Your task to perform on an android device: clear all cookies in the chrome app Image 0: 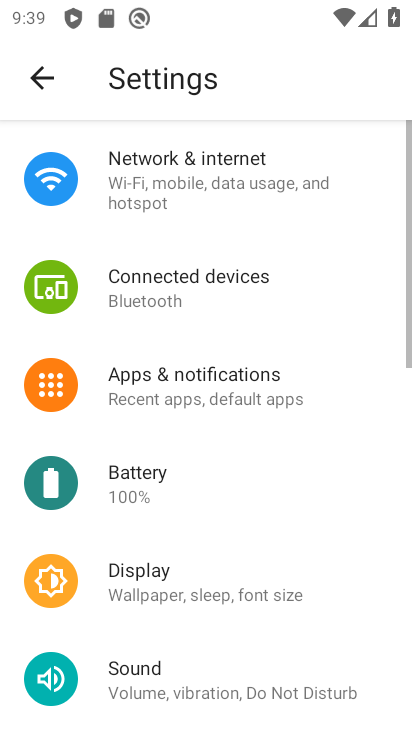
Step 0: drag from (192, 13) to (209, 517)
Your task to perform on an android device: clear all cookies in the chrome app Image 1: 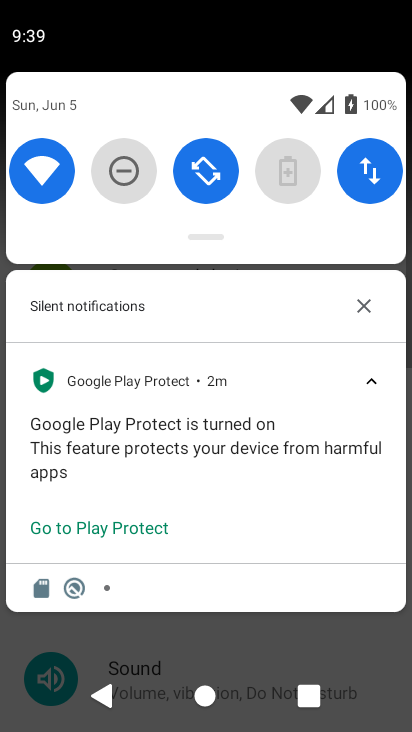
Step 1: press home button
Your task to perform on an android device: clear all cookies in the chrome app Image 2: 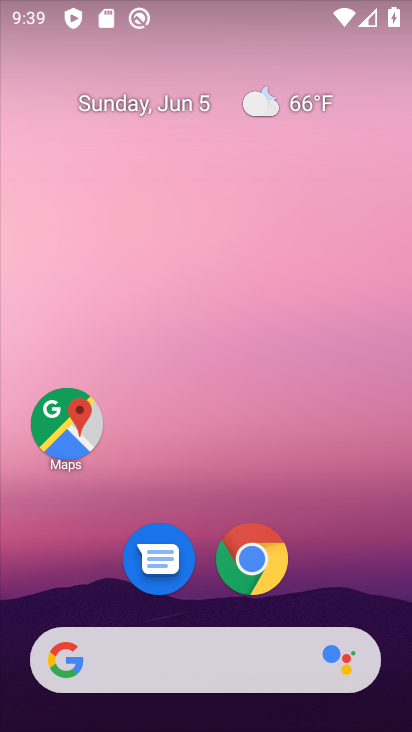
Step 2: click (250, 554)
Your task to perform on an android device: clear all cookies in the chrome app Image 3: 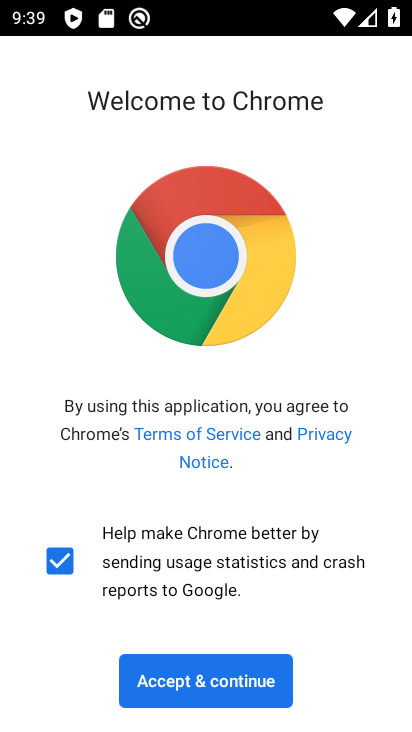
Step 3: click (201, 676)
Your task to perform on an android device: clear all cookies in the chrome app Image 4: 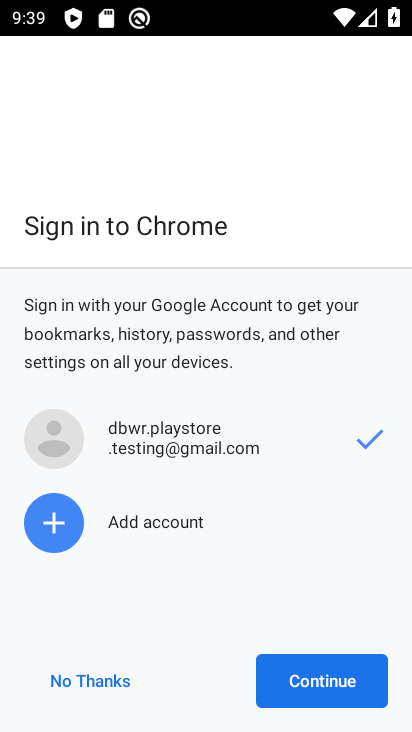
Step 4: click (326, 675)
Your task to perform on an android device: clear all cookies in the chrome app Image 5: 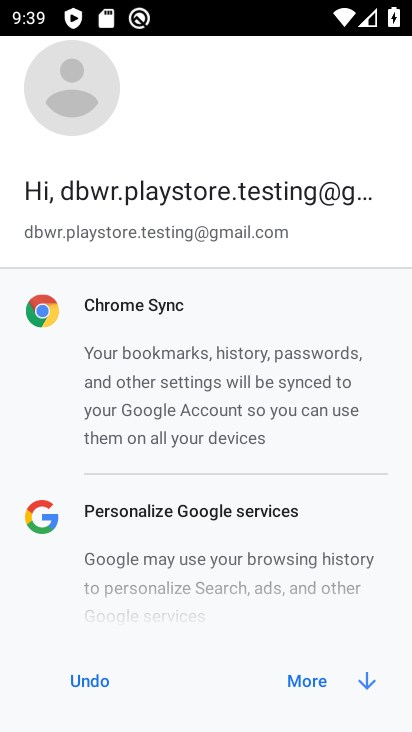
Step 5: click (304, 682)
Your task to perform on an android device: clear all cookies in the chrome app Image 6: 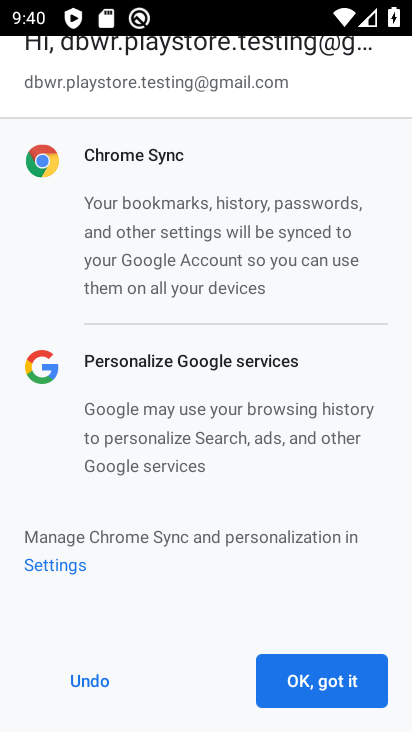
Step 6: click (324, 678)
Your task to perform on an android device: clear all cookies in the chrome app Image 7: 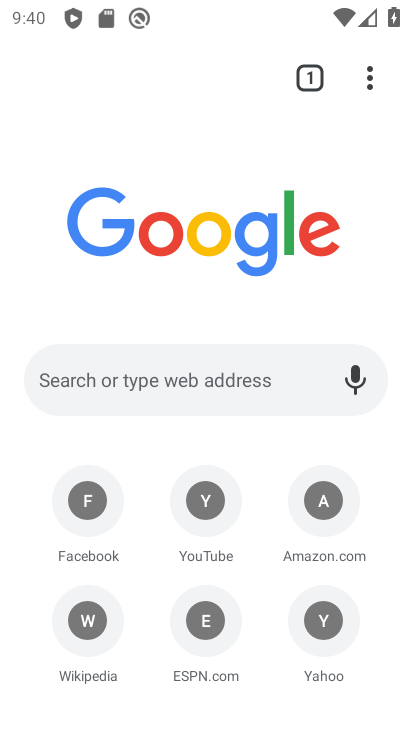
Step 7: click (372, 75)
Your task to perform on an android device: clear all cookies in the chrome app Image 8: 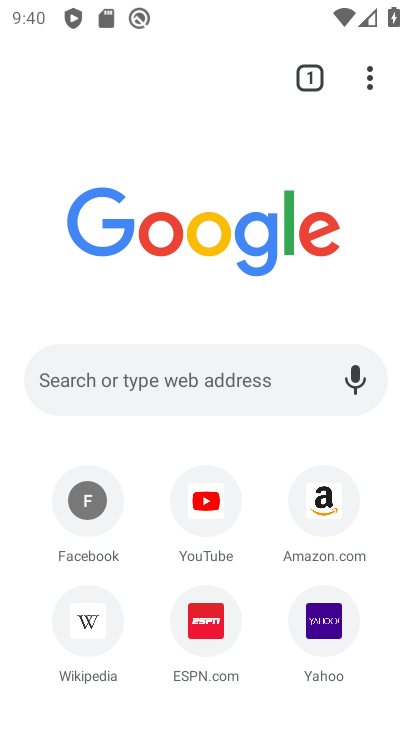
Step 8: click (365, 74)
Your task to perform on an android device: clear all cookies in the chrome app Image 9: 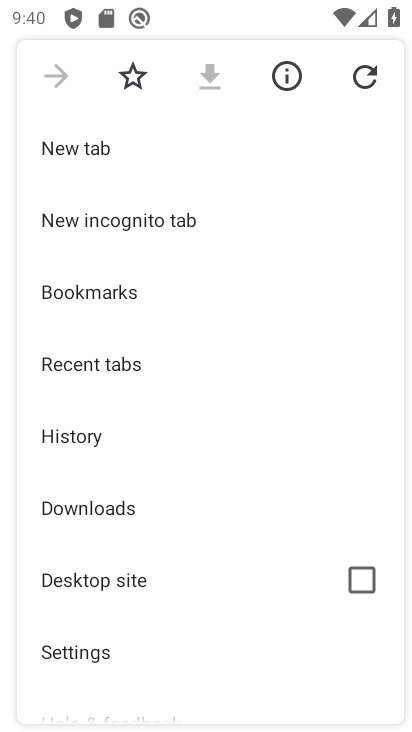
Step 9: click (105, 428)
Your task to perform on an android device: clear all cookies in the chrome app Image 10: 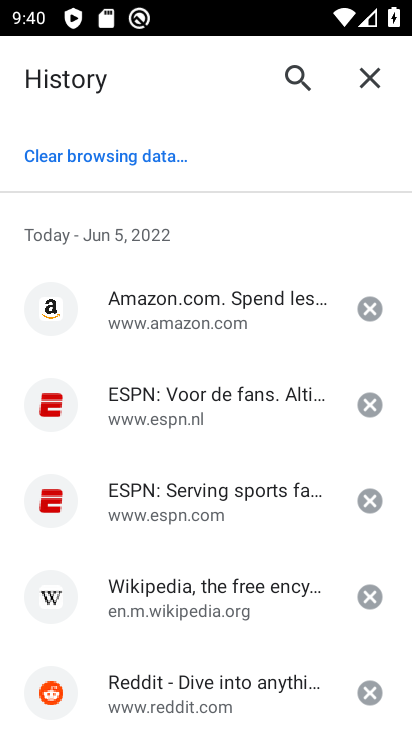
Step 10: click (135, 148)
Your task to perform on an android device: clear all cookies in the chrome app Image 11: 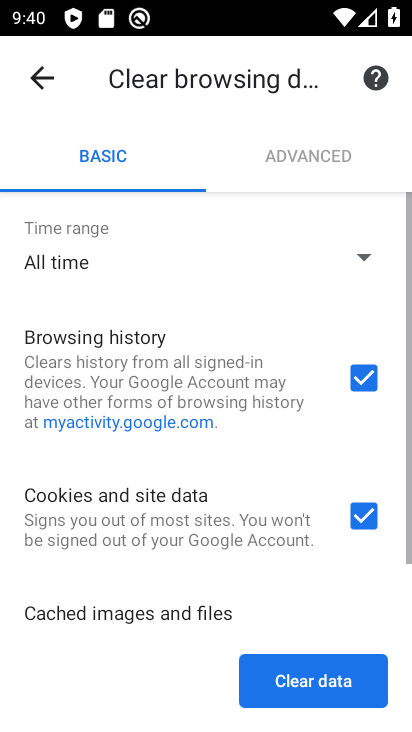
Step 11: click (359, 376)
Your task to perform on an android device: clear all cookies in the chrome app Image 12: 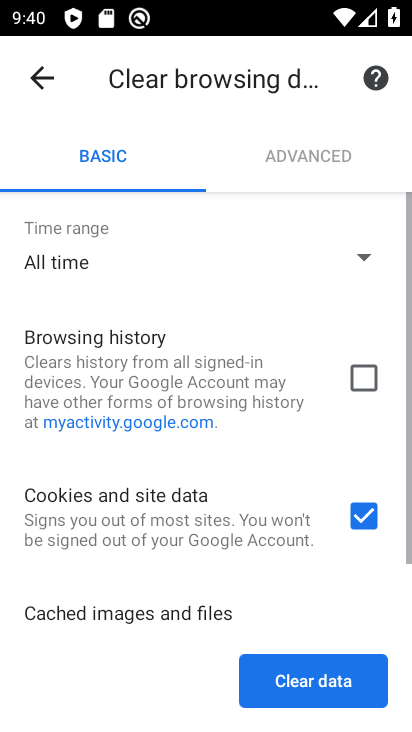
Step 12: drag from (280, 541) to (282, 192)
Your task to perform on an android device: clear all cookies in the chrome app Image 13: 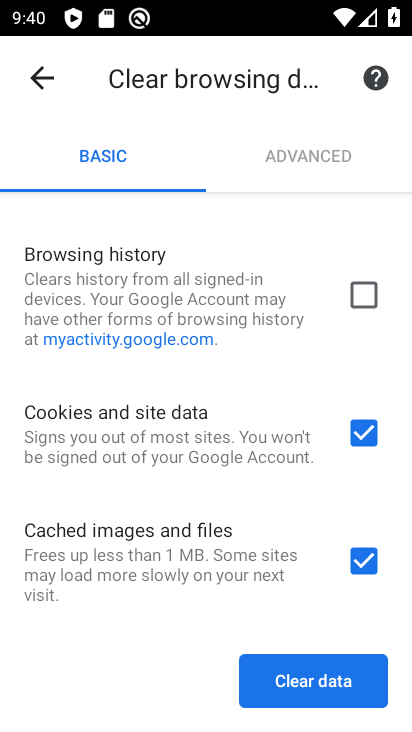
Step 13: click (362, 556)
Your task to perform on an android device: clear all cookies in the chrome app Image 14: 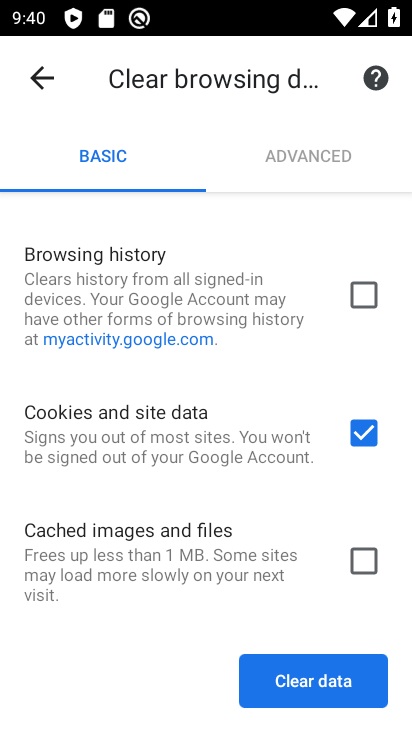
Step 14: click (318, 678)
Your task to perform on an android device: clear all cookies in the chrome app Image 15: 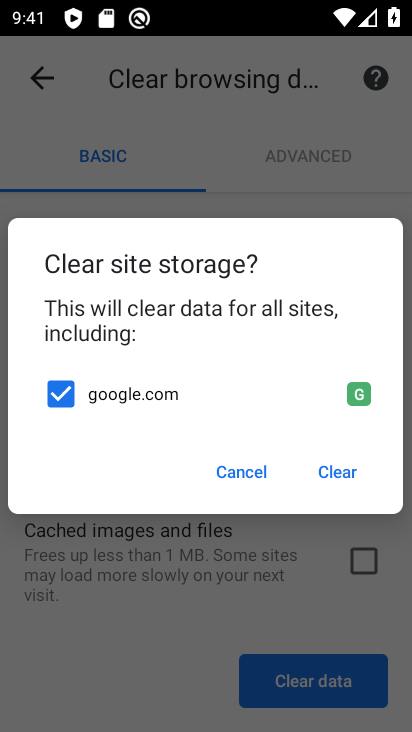
Step 15: click (338, 472)
Your task to perform on an android device: clear all cookies in the chrome app Image 16: 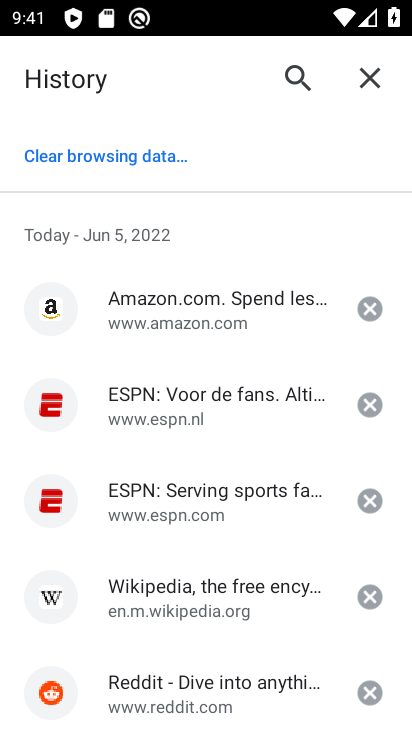
Step 16: task complete